Your task to perform on an android device: Open battery settings Image 0: 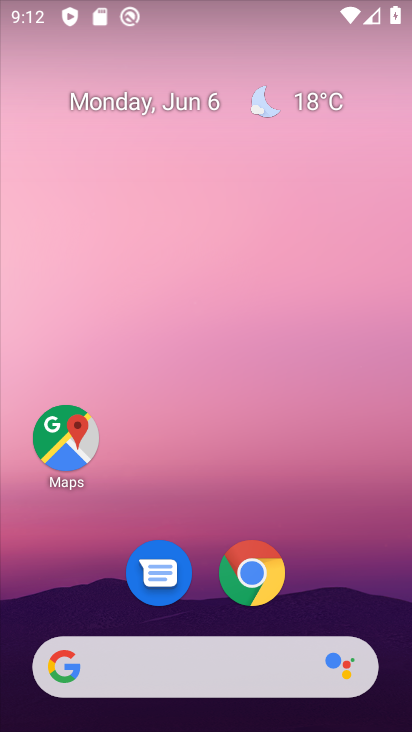
Step 0: drag from (177, 618) to (251, 68)
Your task to perform on an android device: Open battery settings Image 1: 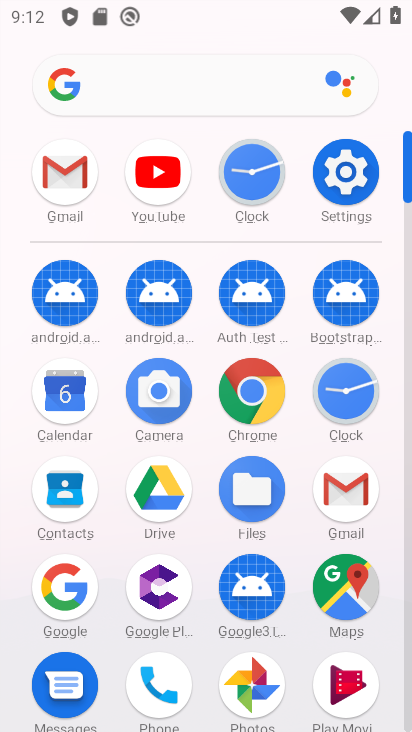
Step 1: click (343, 164)
Your task to perform on an android device: Open battery settings Image 2: 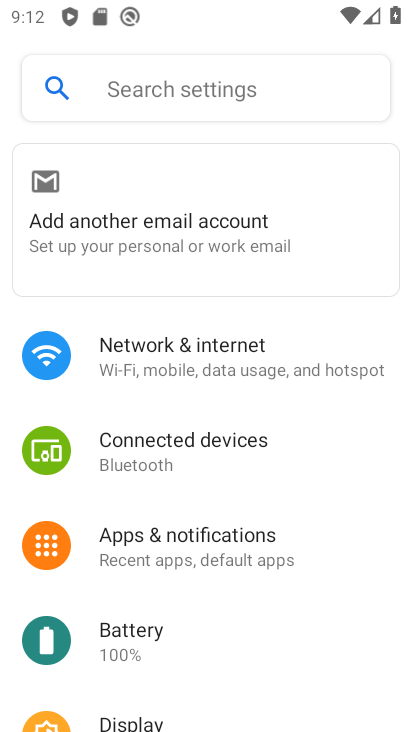
Step 2: click (139, 639)
Your task to perform on an android device: Open battery settings Image 3: 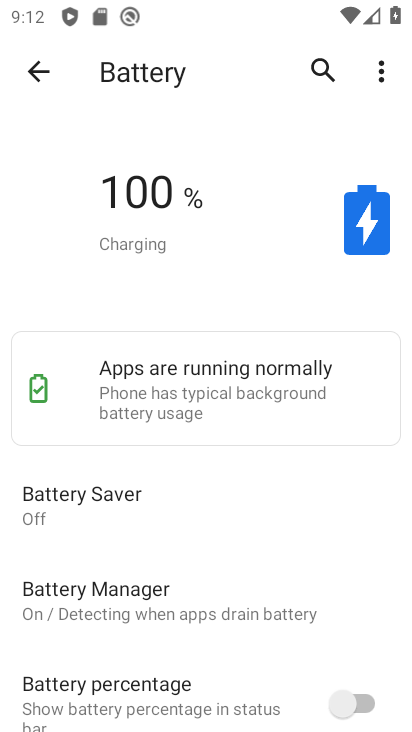
Step 3: task complete